Your task to perform on an android device: toggle javascript in the chrome app Image 0: 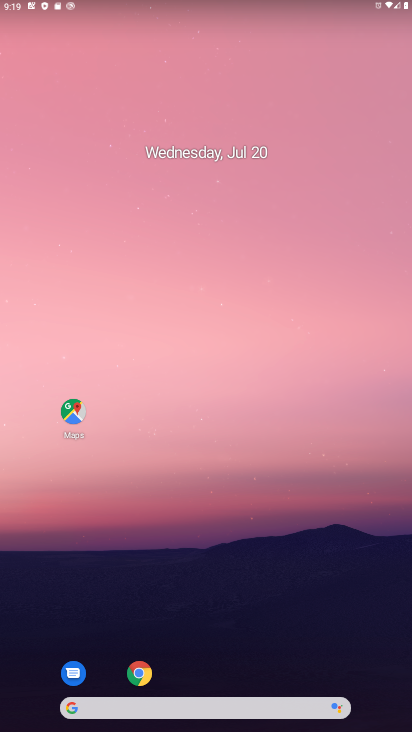
Step 0: drag from (221, 721) to (235, 208)
Your task to perform on an android device: toggle javascript in the chrome app Image 1: 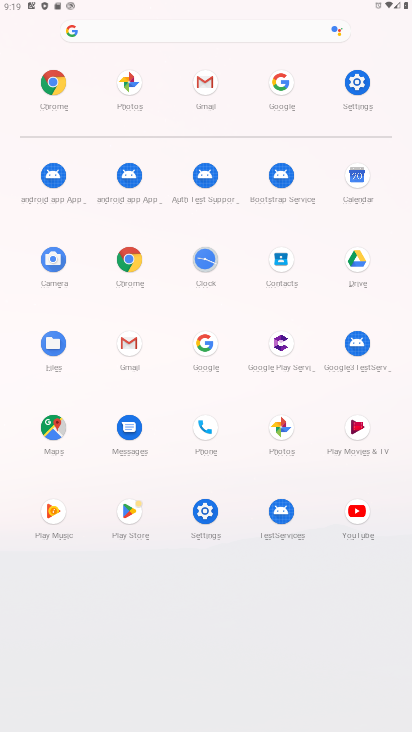
Step 1: click (132, 258)
Your task to perform on an android device: toggle javascript in the chrome app Image 2: 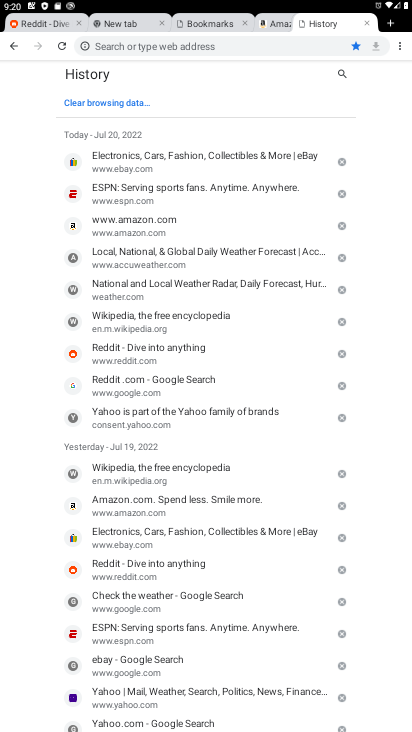
Step 2: click (400, 48)
Your task to perform on an android device: toggle javascript in the chrome app Image 3: 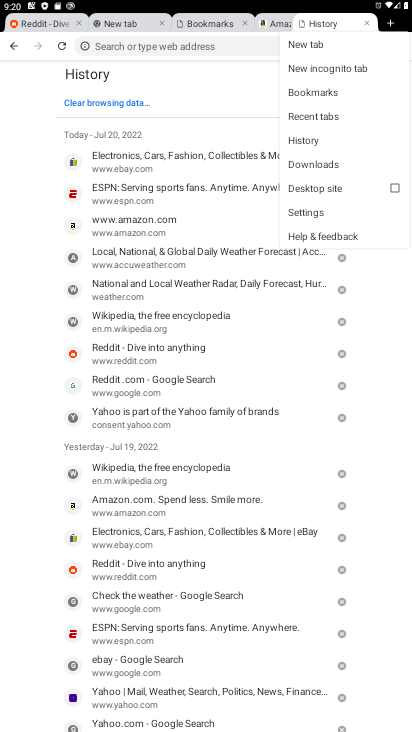
Step 3: click (311, 212)
Your task to perform on an android device: toggle javascript in the chrome app Image 4: 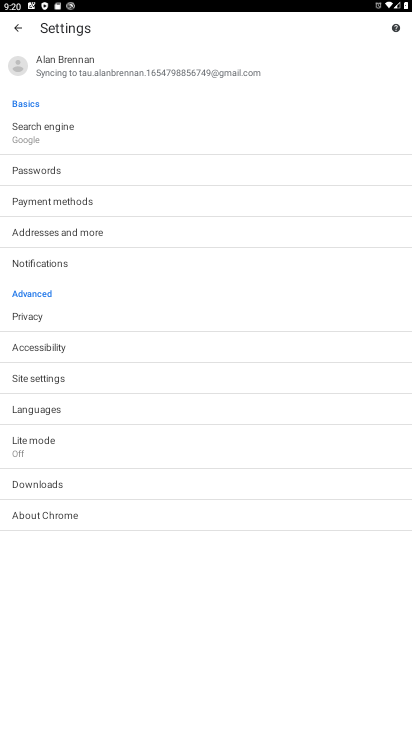
Step 4: click (24, 376)
Your task to perform on an android device: toggle javascript in the chrome app Image 5: 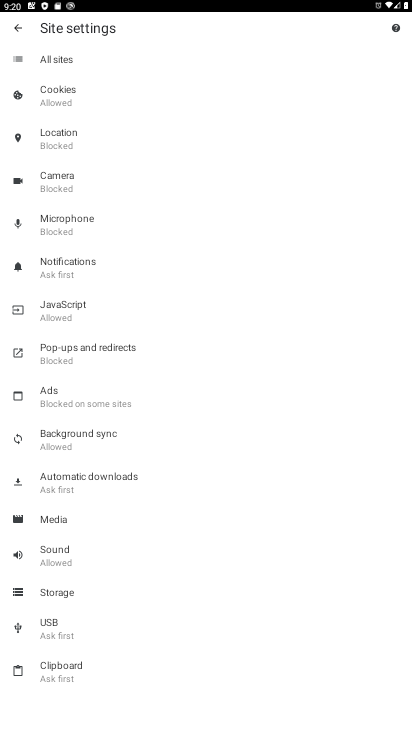
Step 5: click (54, 310)
Your task to perform on an android device: toggle javascript in the chrome app Image 6: 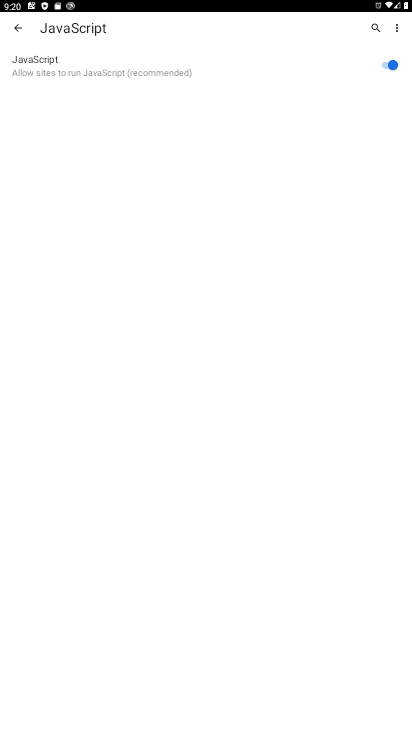
Step 6: click (386, 63)
Your task to perform on an android device: toggle javascript in the chrome app Image 7: 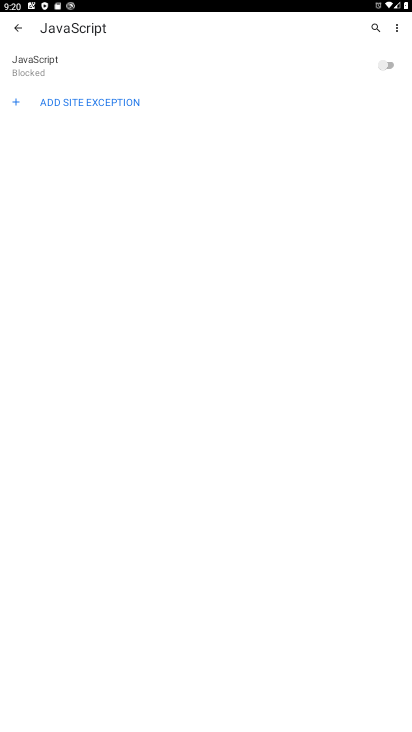
Step 7: task complete